Your task to perform on an android device: turn on notifications settings in the gmail app Image 0: 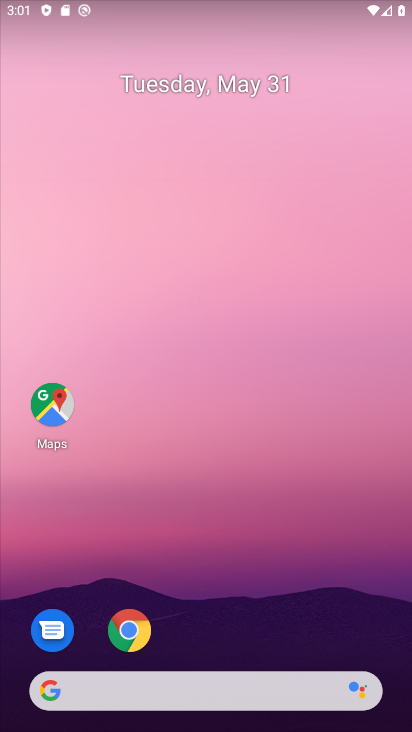
Step 0: drag from (164, 651) to (168, 167)
Your task to perform on an android device: turn on notifications settings in the gmail app Image 1: 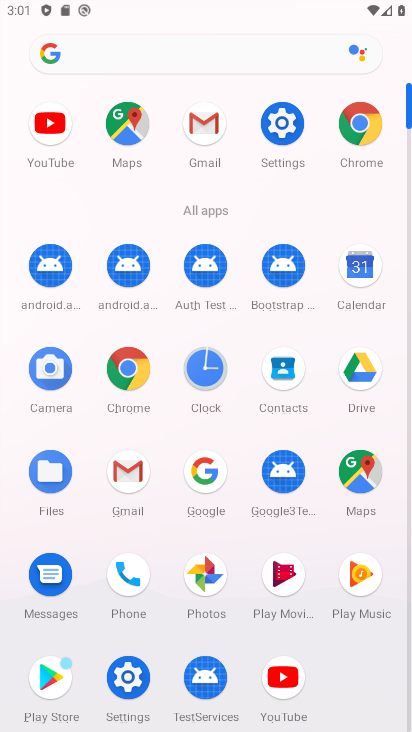
Step 1: click (141, 681)
Your task to perform on an android device: turn on notifications settings in the gmail app Image 2: 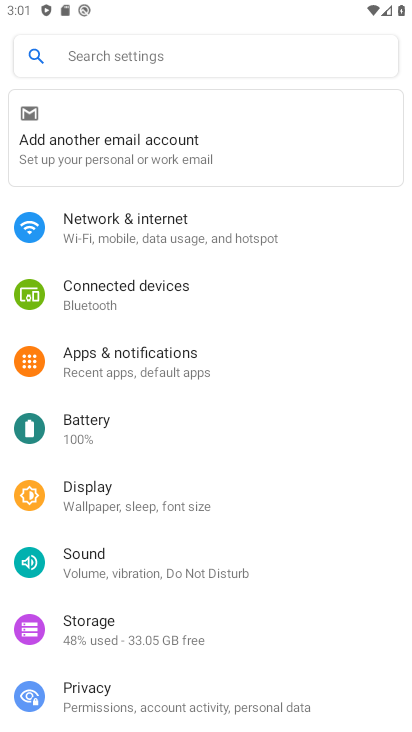
Step 2: click (169, 346)
Your task to perform on an android device: turn on notifications settings in the gmail app Image 3: 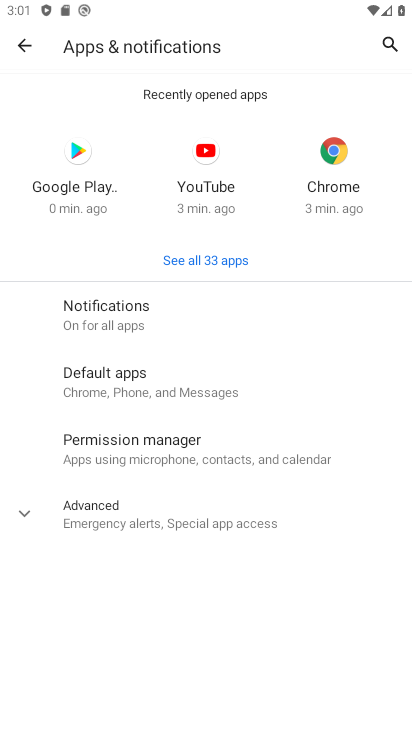
Step 3: click (198, 258)
Your task to perform on an android device: turn on notifications settings in the gmail app Image 4: 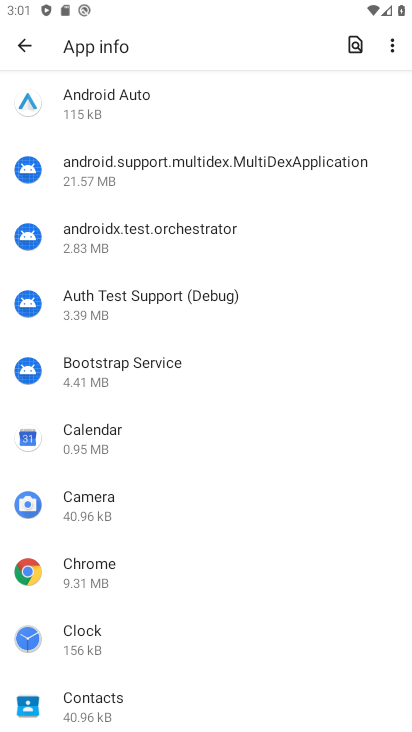
Step 4: drag from (118, 570) to (232, 42)
Your task to perform on an android device: turn on notifications settings in the gmail app Image 5: 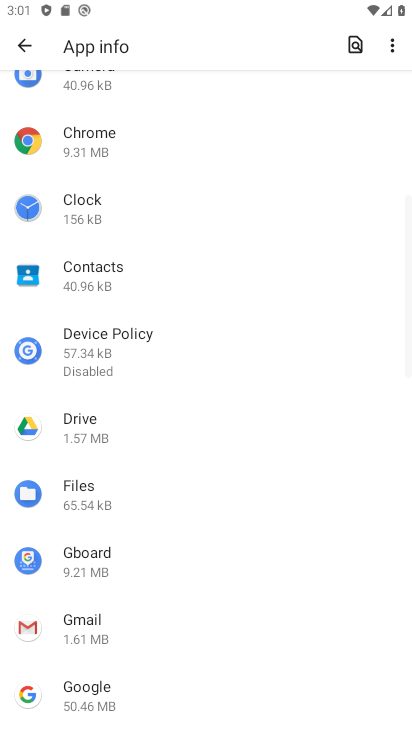
Step 5: click (73, 623)
Your task to perform on an android device: turn on notifications settings in the gmail app Image 6: 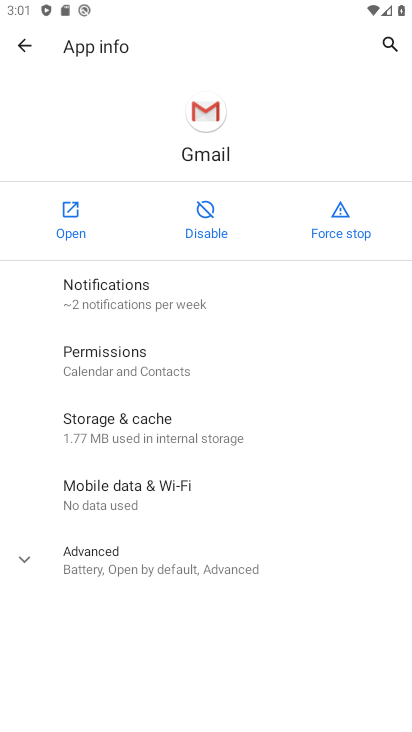
Step 6: click (166, 307)
Your task to perform on an android device: turn on notifications settings in the gmail app Image 7: 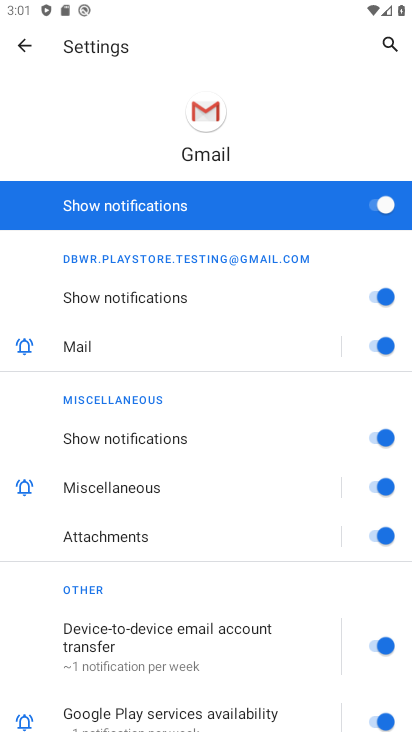
Step 7: task complete